Your task to perform on an android device: Search for pizza restaurants on Maps Image 0: 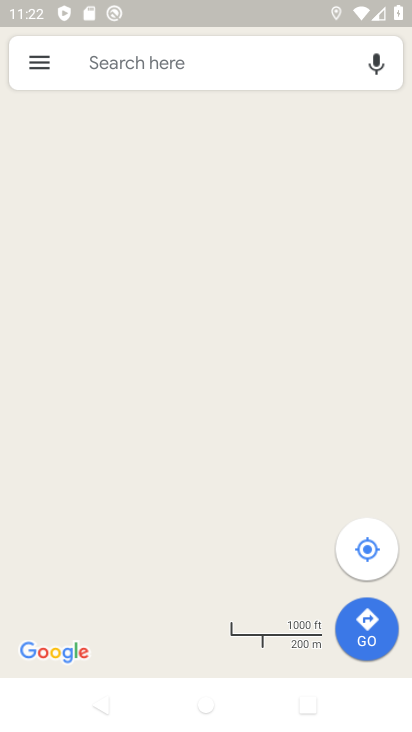
Step 0: press home button
Your task to perform on an android device: Search for pizza restaurants on Maps Image 1: 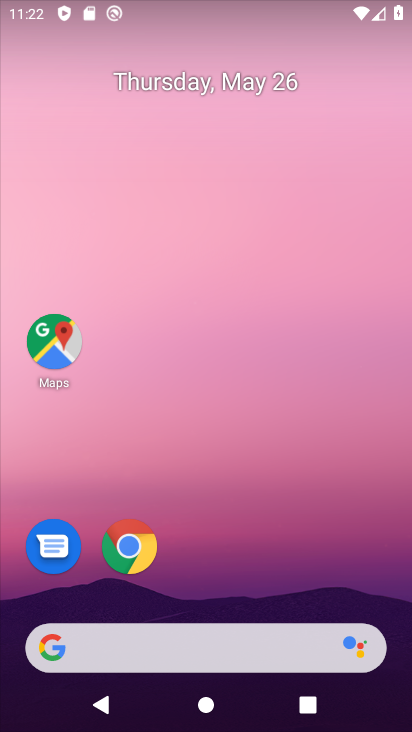
Step 1: click (54, 341)
Your task to perform on an android device: Search for pizza restaurants on Maps Image 2: 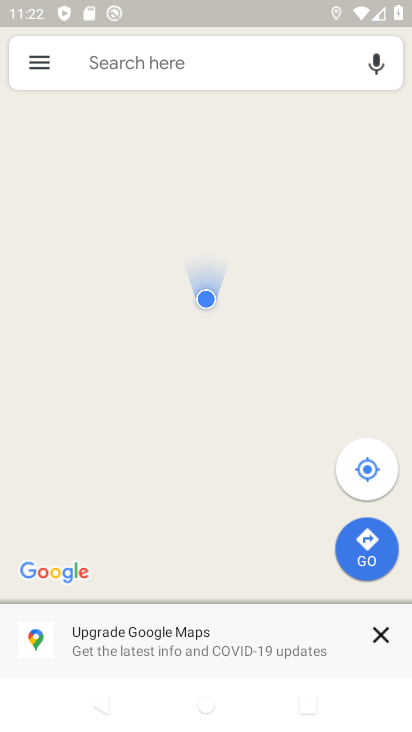
Step 2: click (199, 66)
Your task to perform on an android device: Search for pizza restaurants on Maps Image 3: 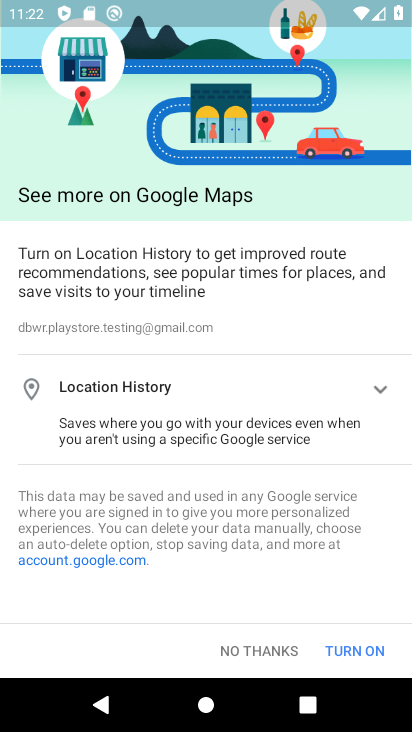
Step 3: click (346, 654)
Your task to perform on an android device: Search for pizza restaurants on Maps Image 4: 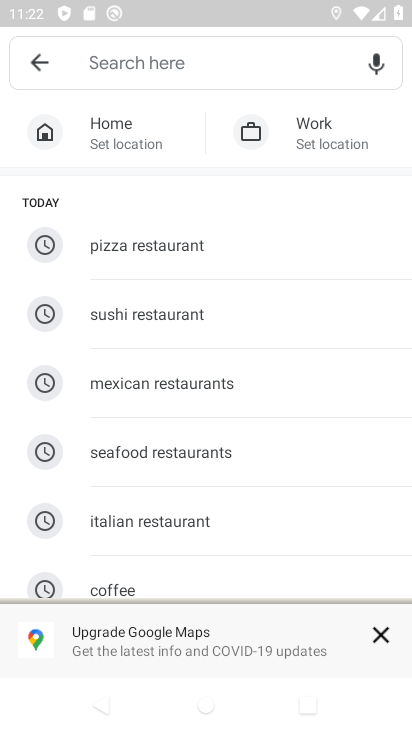
Step 4: click (137, 250)
Your task to perform on an android device: Search for pizza restaurants on Maps Image 5: 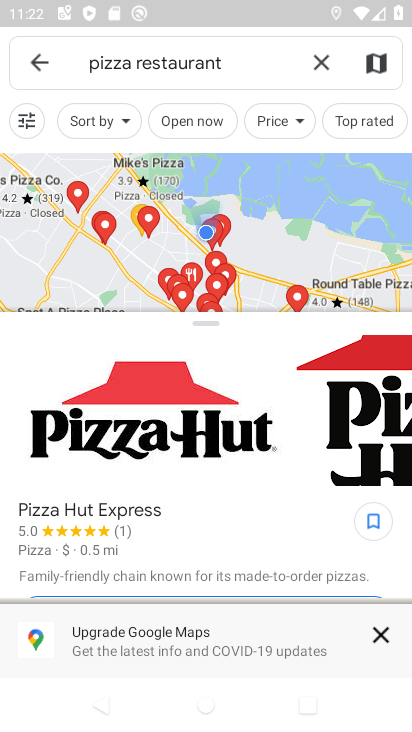
Step 5: task complete